Your task to perform on an android device: Open CNN.com Image 0: 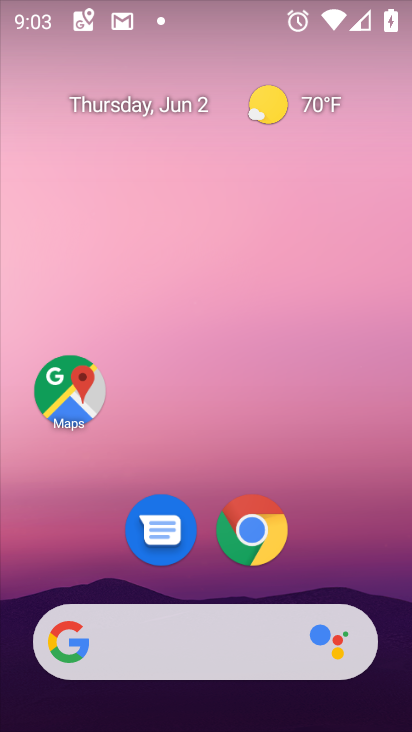
Step 0: drag from (209, 598) to (175, 362)
Your task to perform on an android device: Open CNN.com Image 1: 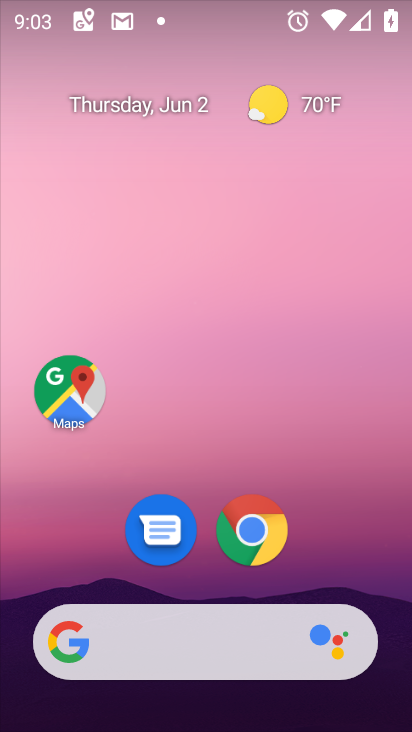
Step 1: drag from (174, 616) to (122, 161)
Your task to perform on an android device: Open CNN.com Image 2: 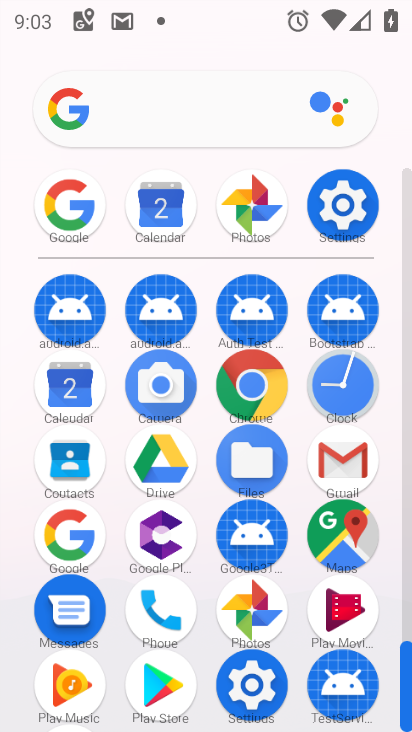
Step 2: click (65, 527)
Your task to perform on an android device: Open CNN.com Image 3: 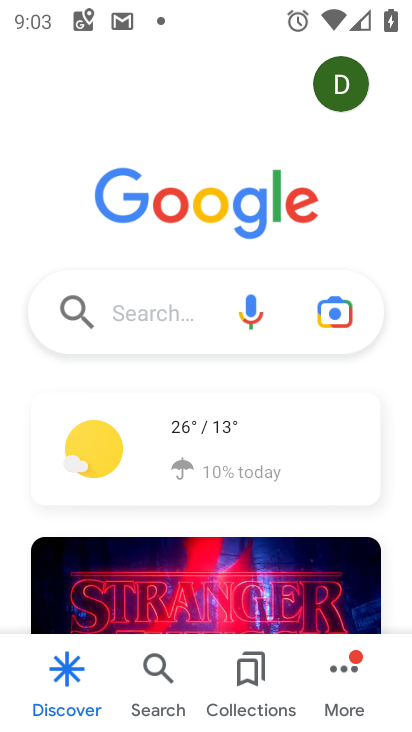
Step 3: click (124, 318)
Your task to perform on an android device: Open CNN.com Image 4: 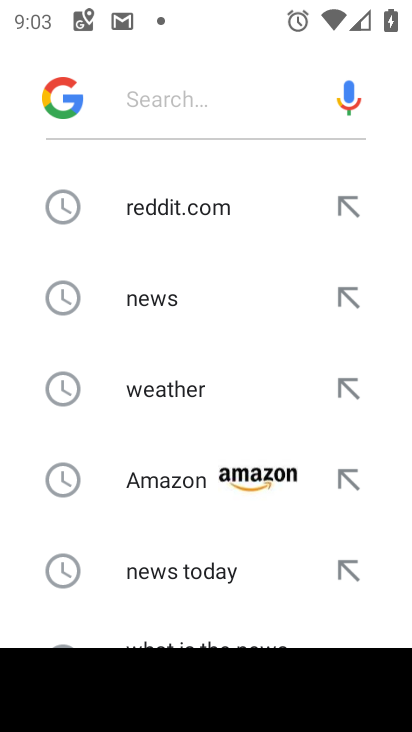
Step 4: drag from (131, 549) to (125, 167)
Your task to perform on an android device: Open CNN.com Image 5: 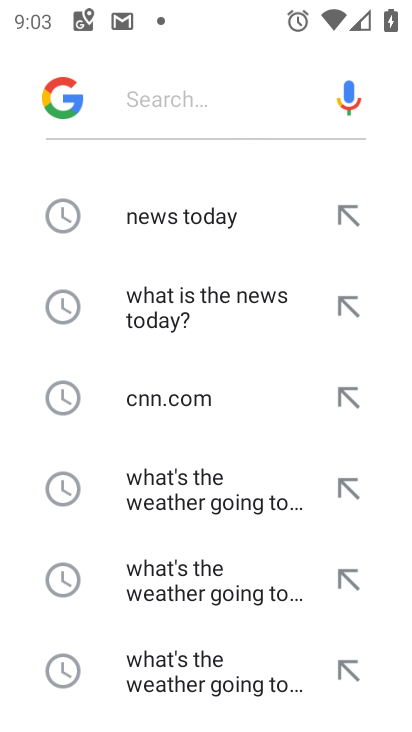
Step 5: drag from (161, 612) to (159, 280)
Your task to perform on an android device: Open CNN.com Image 6: 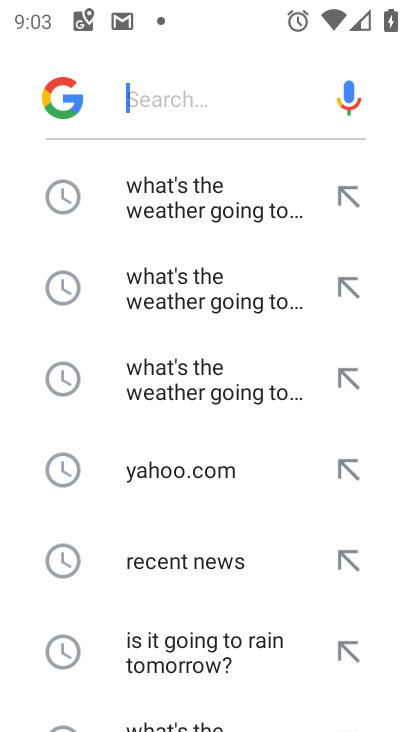
Step 6: drag from (161, 187) to (161, 525)
Your task to perform on an android device: Open CNN.com Image 7: 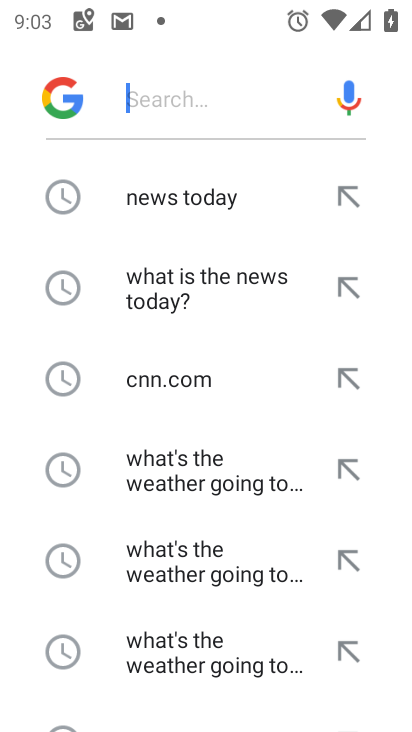
Step 7: click (153, 385)
Your task to perform on an android device: Open CNN.com Image 8: 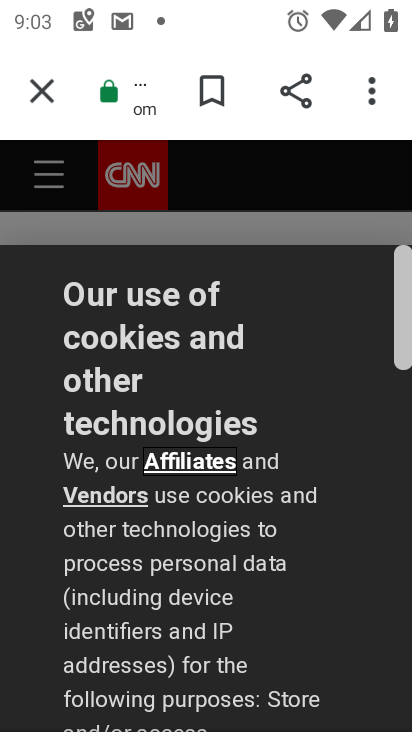
Step 8: task complete